Your task to perform on an android device: Search for the best rated kitchen reno kits on Lowes.com Image 0: 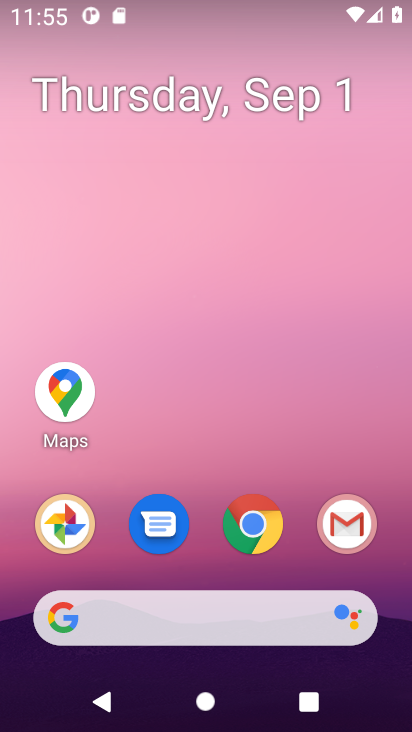
Step 0: click (296, 617)
Your task to perform on an android device: Search for the best rated kitchen reno kits on Lowes.com Image 1: 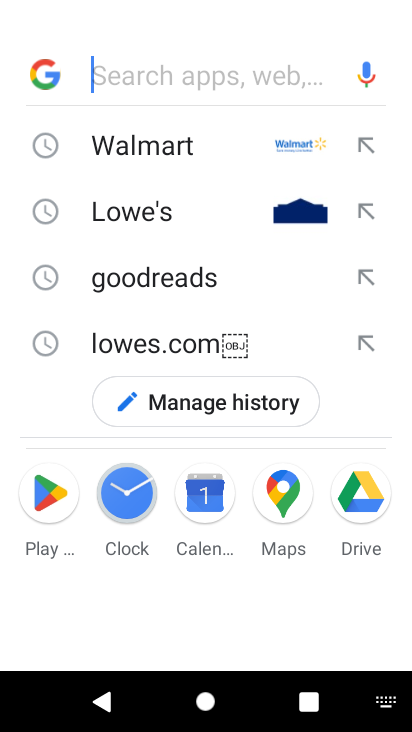
Step 1: press enter
Your task to perform on an android device: Search for the best rated kitchen reno kits on Lowes.com Image 2: 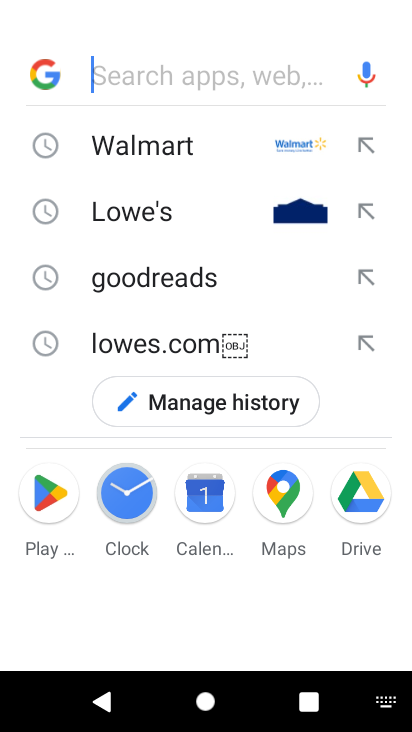
Step 2: type "lowes.com"
Your task to perform on an android device: Search for the best rated kitchen reno kits on Lowes.com Image 3: 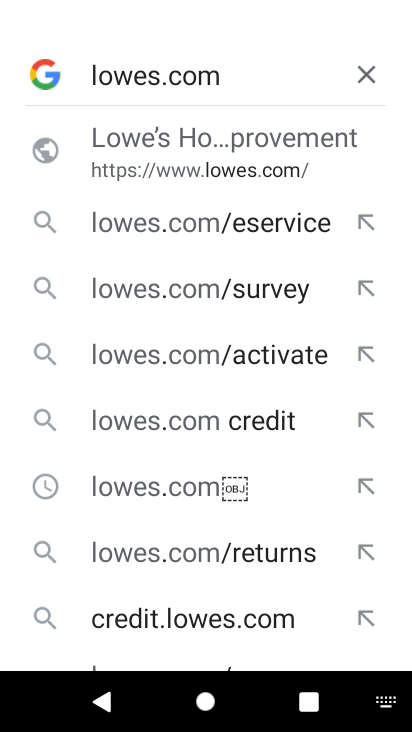
Step 3: click (289, 161)
Your task to perform on an android device: Search for the best rated kitchen reno kits on Lowes.com Image 4: 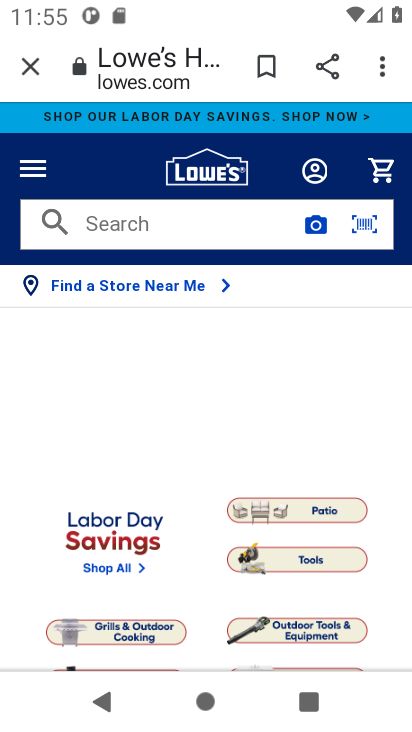
Step 4: click (151, 224)
Your task to perform on an android device: Search for the best rated kitchen reno kits on Lowes.com Image 5: 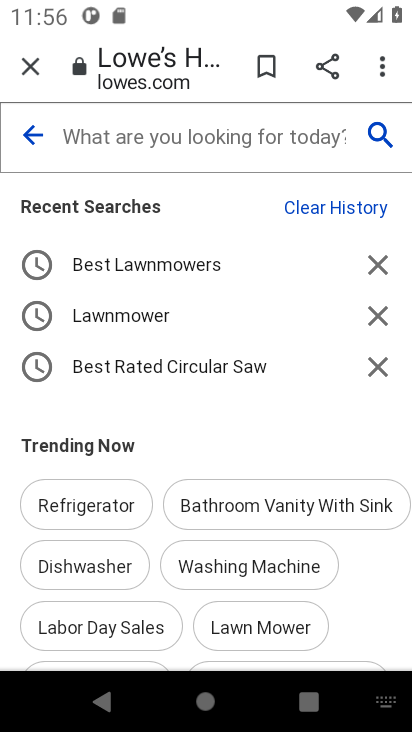
Step 5: press enter
Your task to perform on an android device: Search for the best rated kitchen reno kits on Lowes.com Image 6: 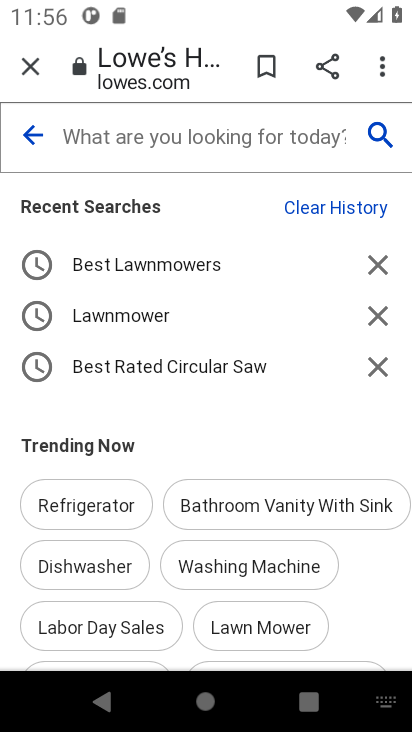
Step 6: type " best rated kitchen reno kits"
Your task to perform on an android device: Search for the best rated kitchen reno kits on Lowes.com Image 7: 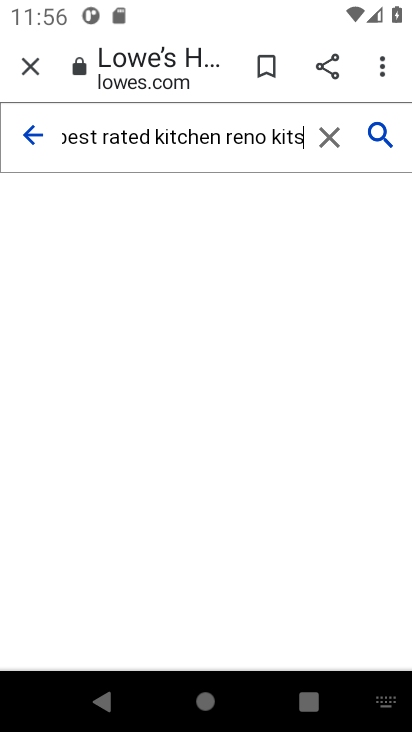
Step 7: click (382, 133)
Your task to perform on an android device: Search for the best rated kitchen reno kits on Lowes.com Image 8: 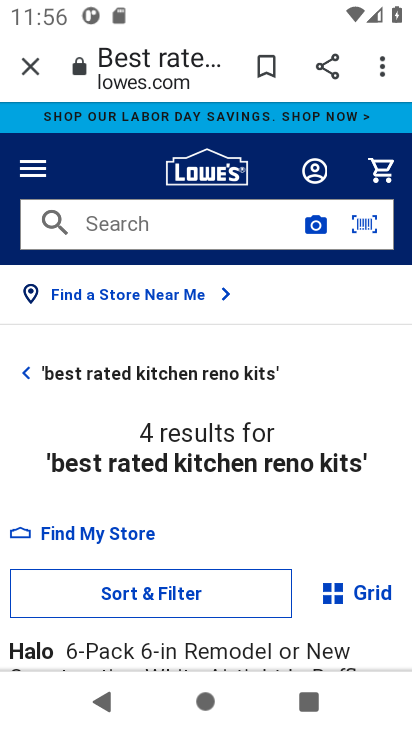
Step 8: task complete